Your task to perform on an android device: Go to Reddit.com Image 0: 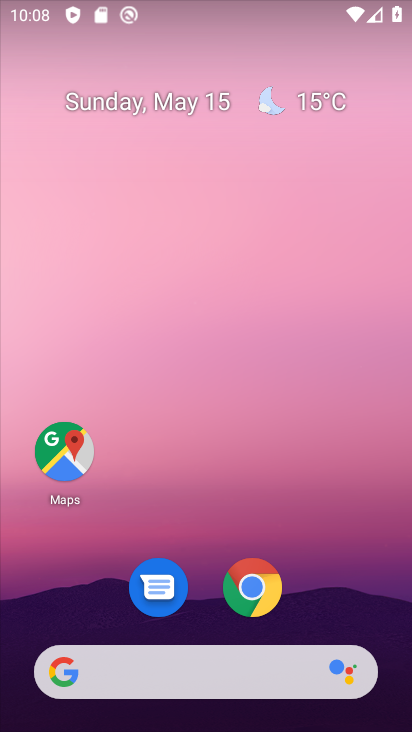
Step 0: drag from (162, 638) to (280, 173)
Your task to perform on an android device: Go to Reddit.com Image 1: 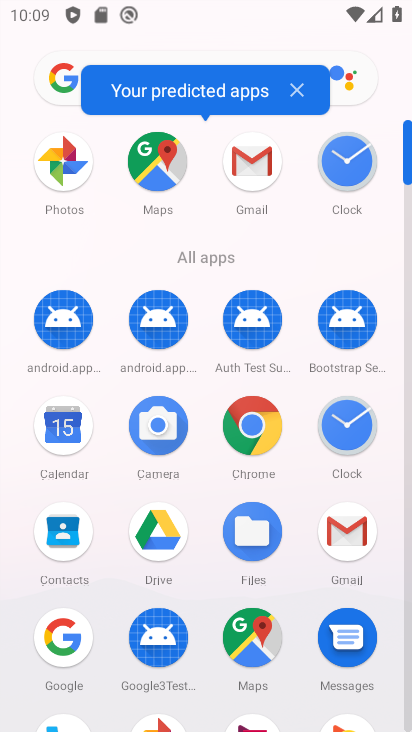
Step 1: drag from (133, 662) to (219, 358)
Your task to perform on an android device: Go to Reddit.com Image 2: 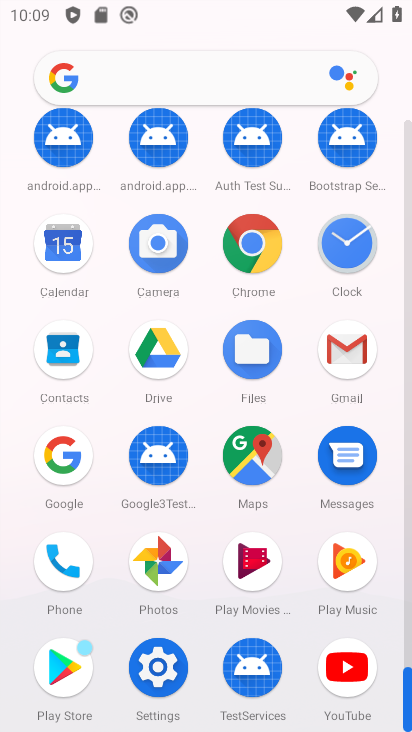
Step 2: click (70, 461)
Your task to perform on an android device: Go to Reddit.com Image 3: 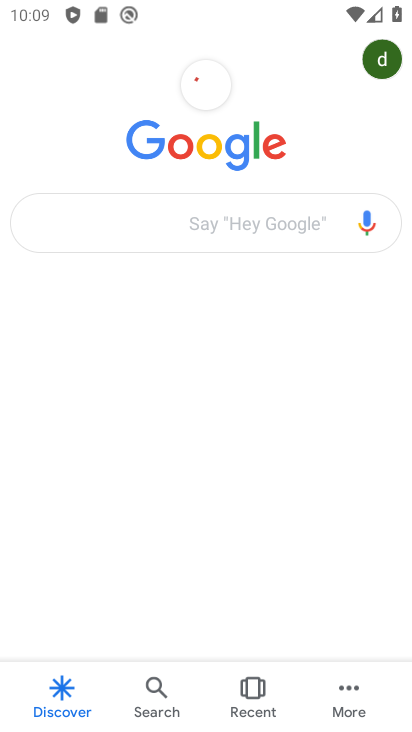
Step 3: click (172, 233)
Your task to perform on an android device: Go to Reddit.com Image 4: 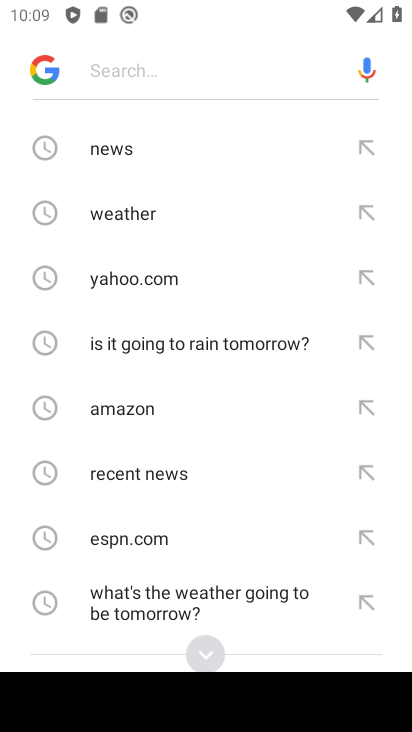
Step 4: type "Reddit.com"
Your task to perform on an android device: Go to Reddit.com Image 5: 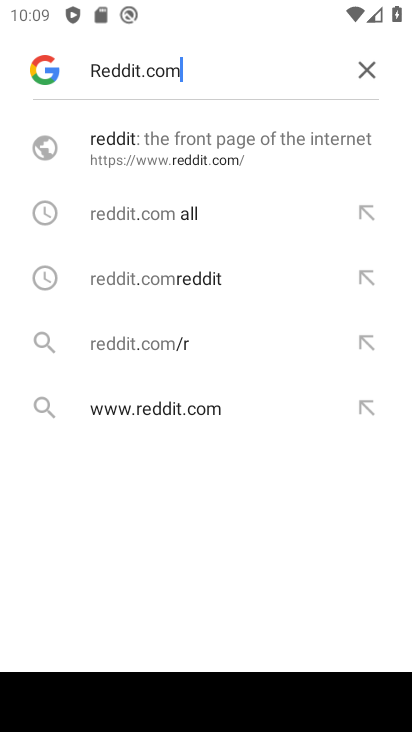
Step 5: click (163, 164)
Your task to perform on an android device: Go to Reddit.com Image 6: 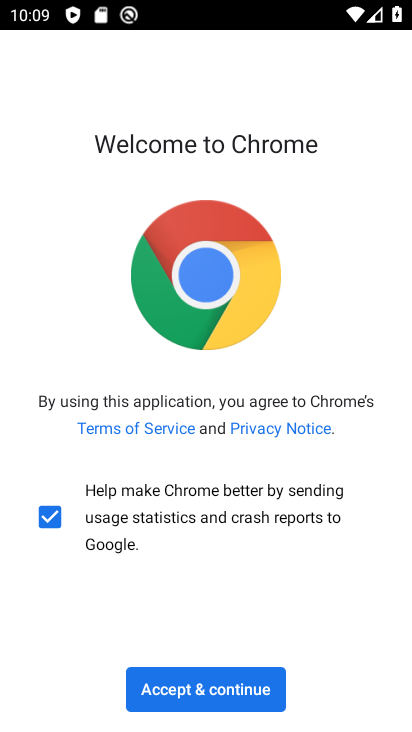
Step 6: click (247, 686)
Your task to perform on an android device: Go to Reddit.com Image 7: 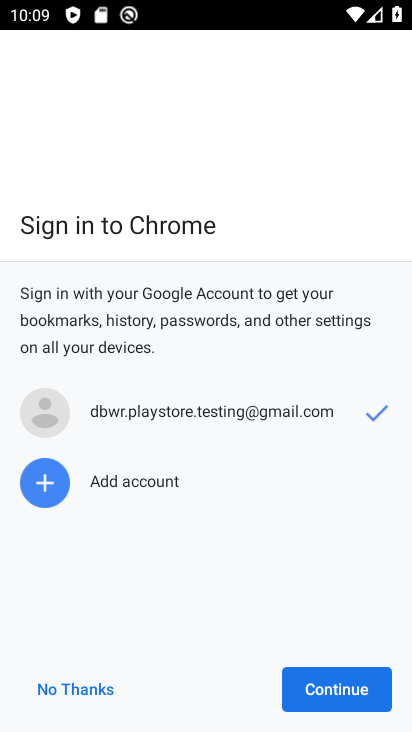
Step 7: click (322, 706)
Your task to perform on an android device: Go to Reddit.com Image 8: 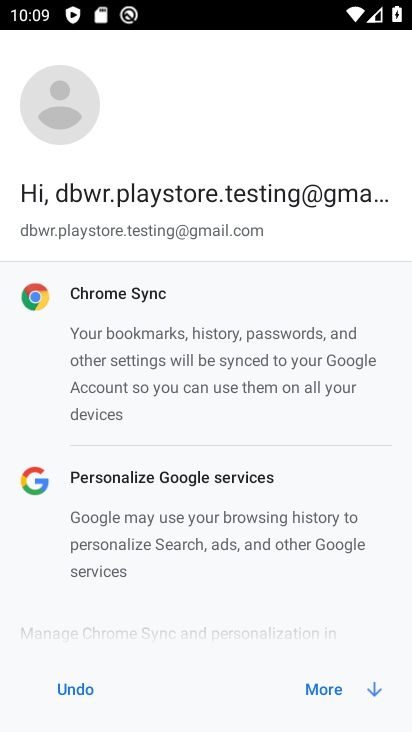
Step 8: click (322, 690)
Your task to perform on an android device: Go to Reddit.com Image 9: 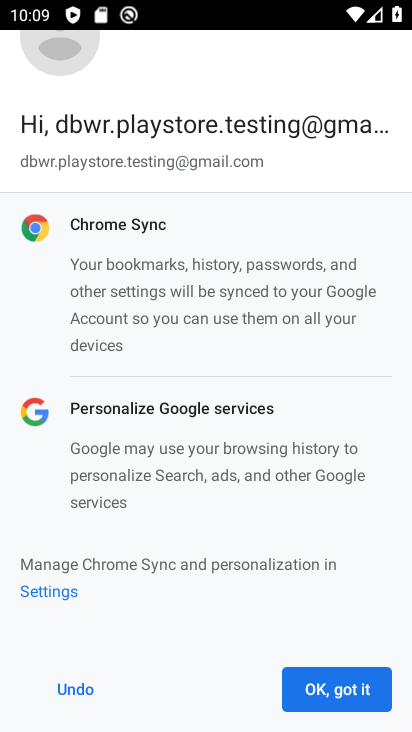
Step 9: click (340, 691)
Your task to perform on an android device: Go to Reddit.com Image 10: 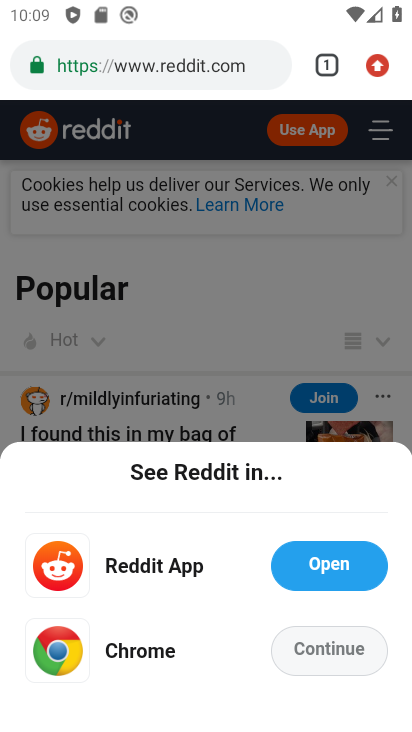
Step 10: task complete